Your task to perform on an android device: Add "usb-b" to the cart on newegg Image 0: 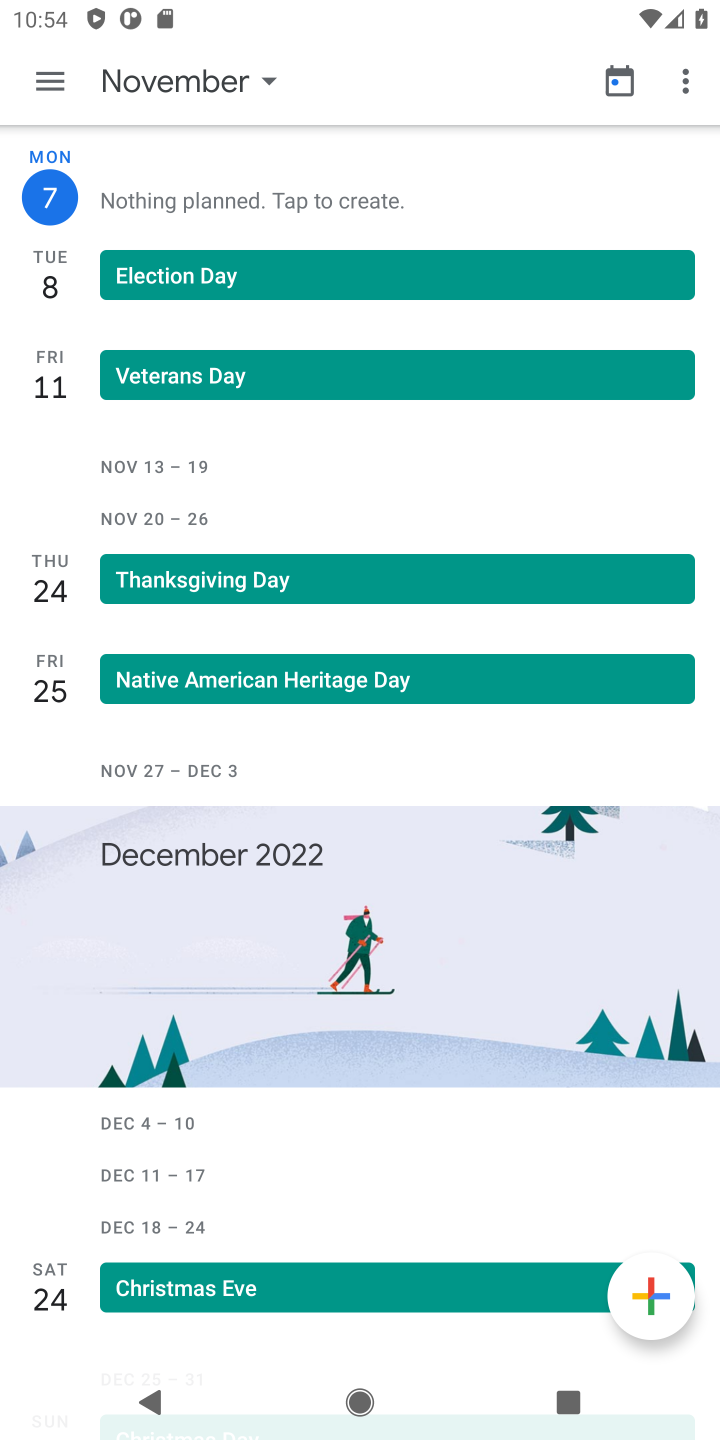
Step 0: press home button
Your task to perform on an android device: Add "usb-b" to the cart on newegg Image 1: 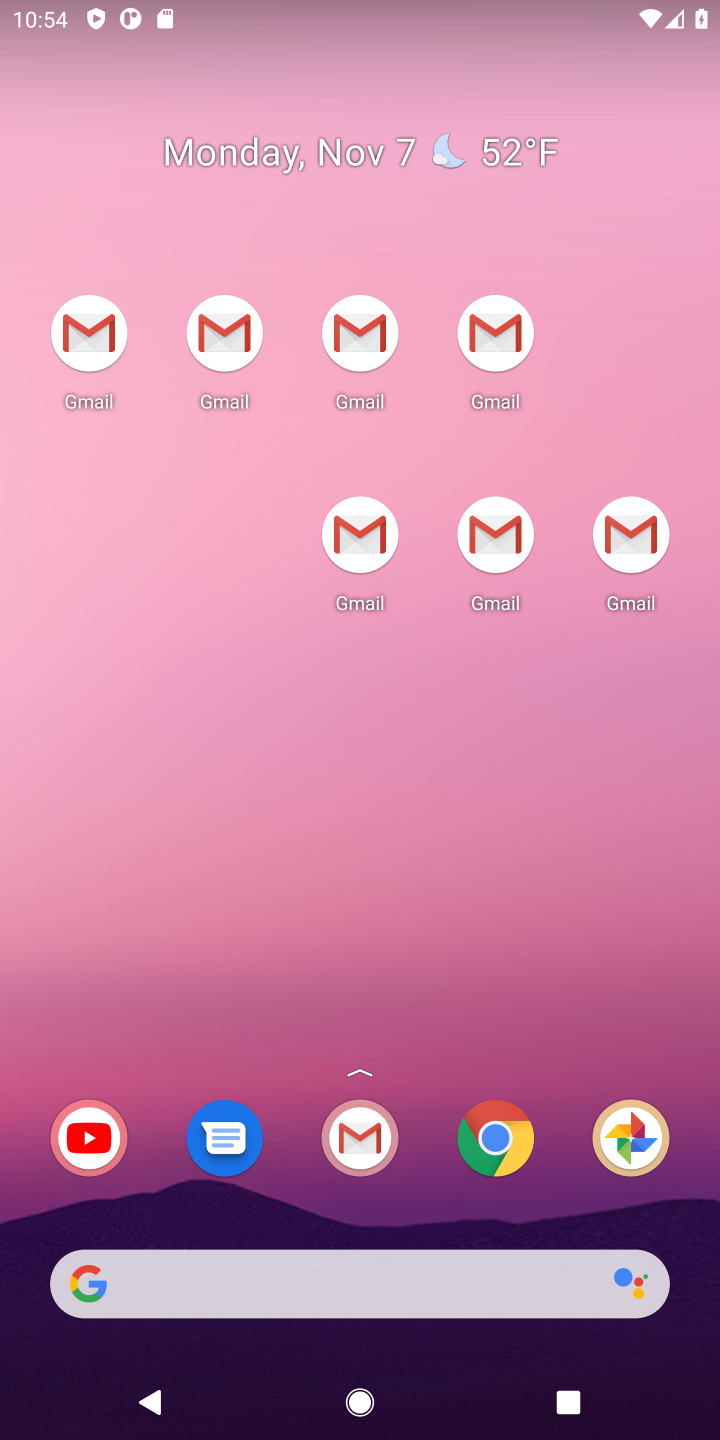
Step 1: drag from (459, 1135) to (459, 585)
Your task to perform on an android device: Add "usb-b" to the cart on newegg Image 2: 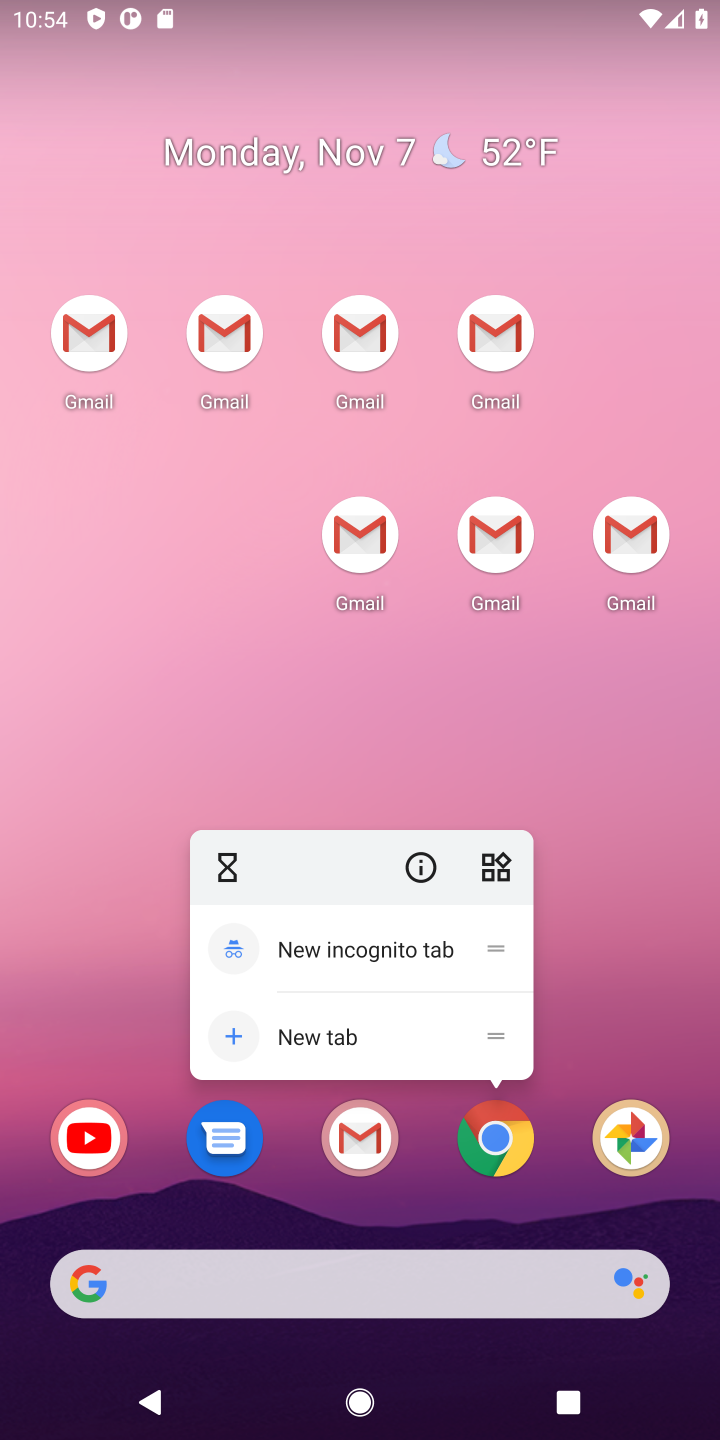
Step 2: click (531, 775)
Your task to perform on an android device: Add "usb-b" to the cart on newegg Image 3: 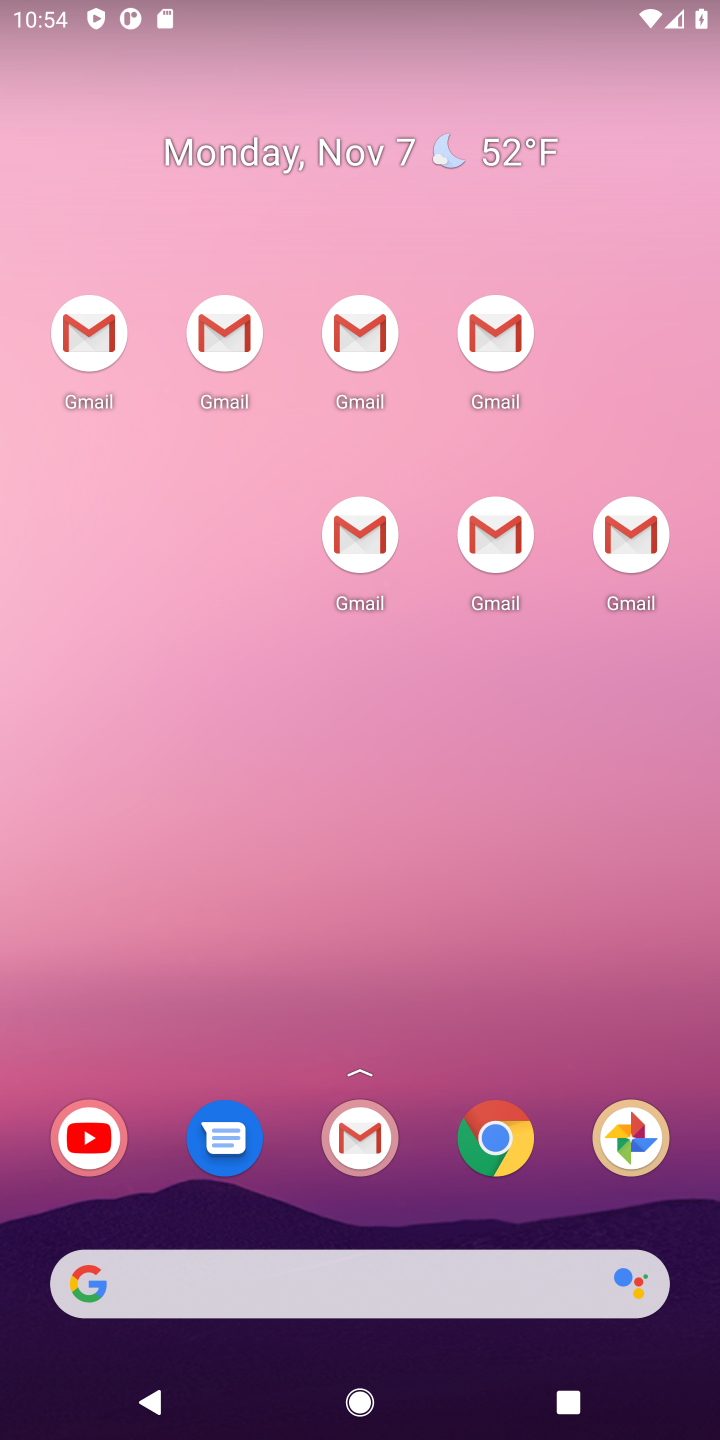
Step 3: drag from (420, 1203) to (427, 952)
Your task to perform on an android device: Add "usb-b" to the cart on newegg Image 4: 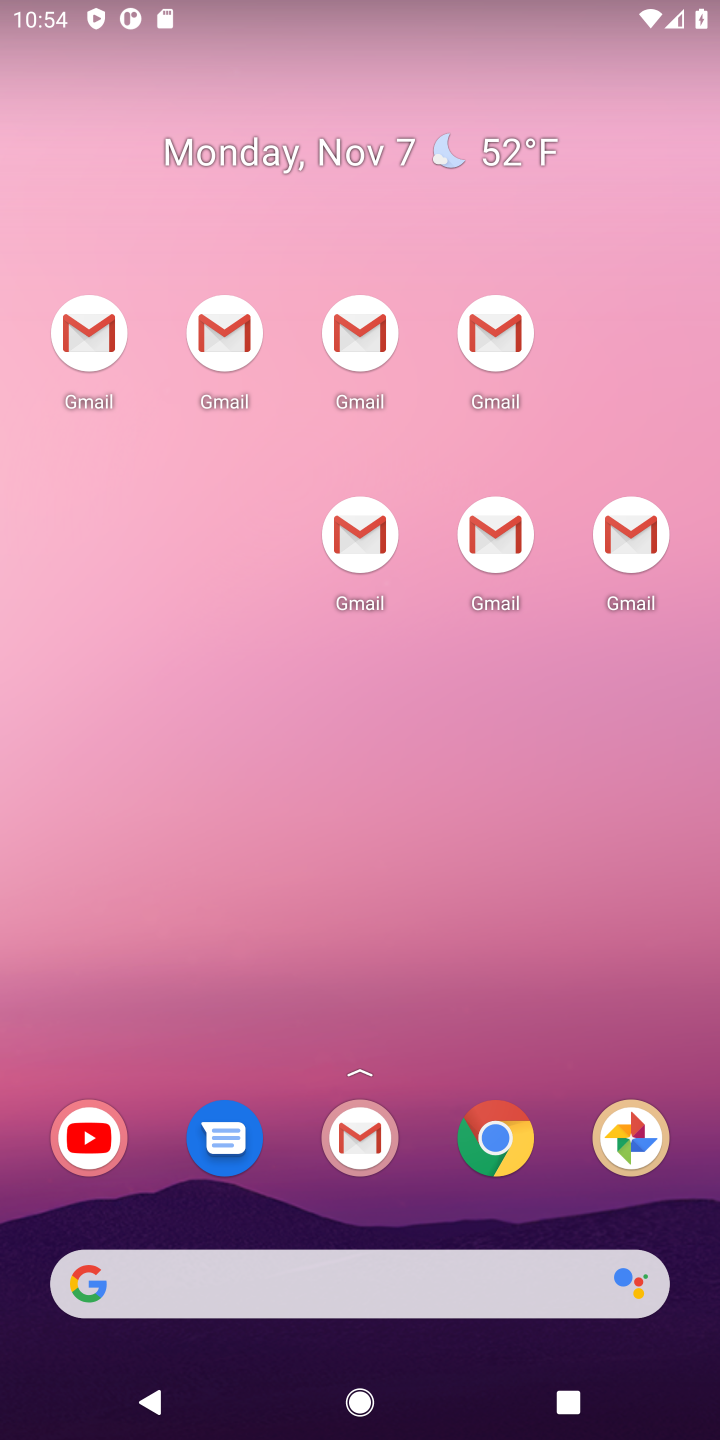
Step 4: drag from (437, 1204) to (437, 865)
Your task to perform on an android device: Add "usb-b" to the cart on newegg Image 5: 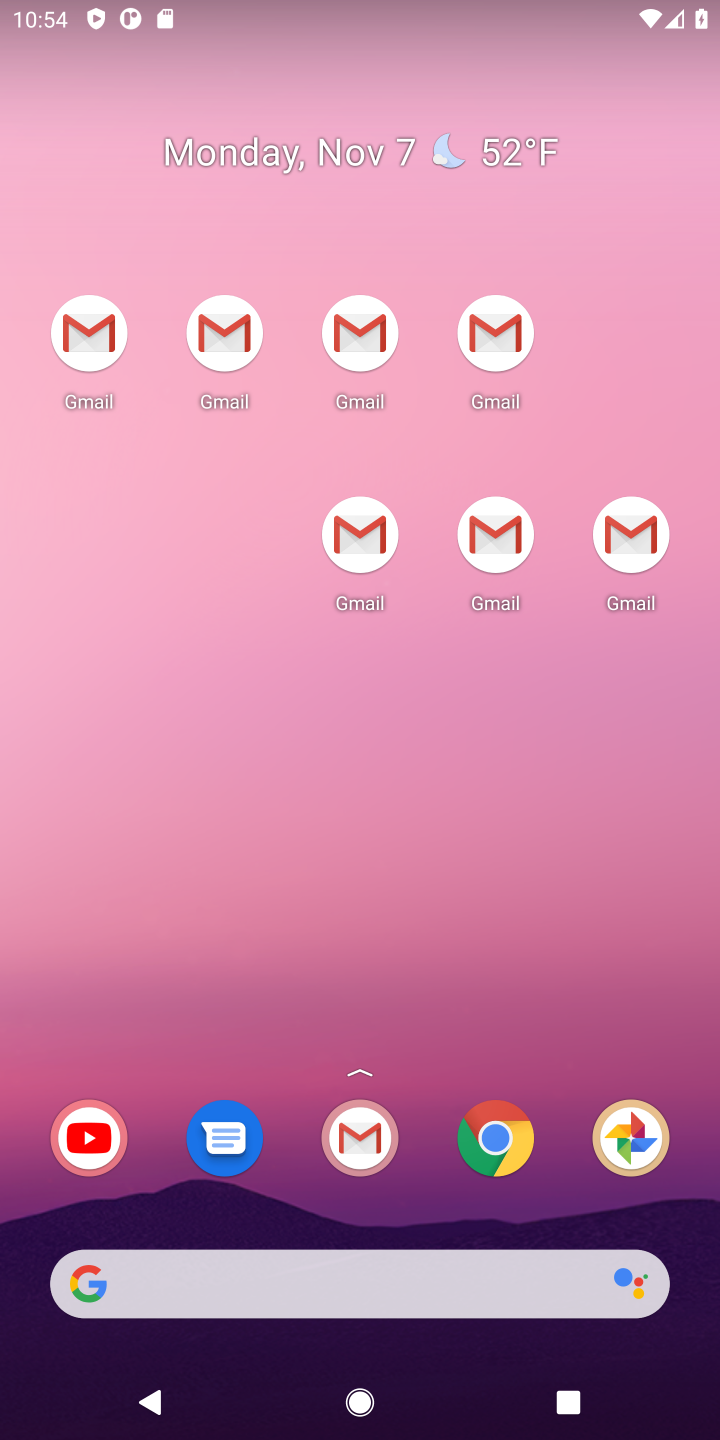
Step 5: drag from (416, 1185) to (417, 440)
Your task to perform on an android device: Add "usb-b" to the cart on newegg Image 6: 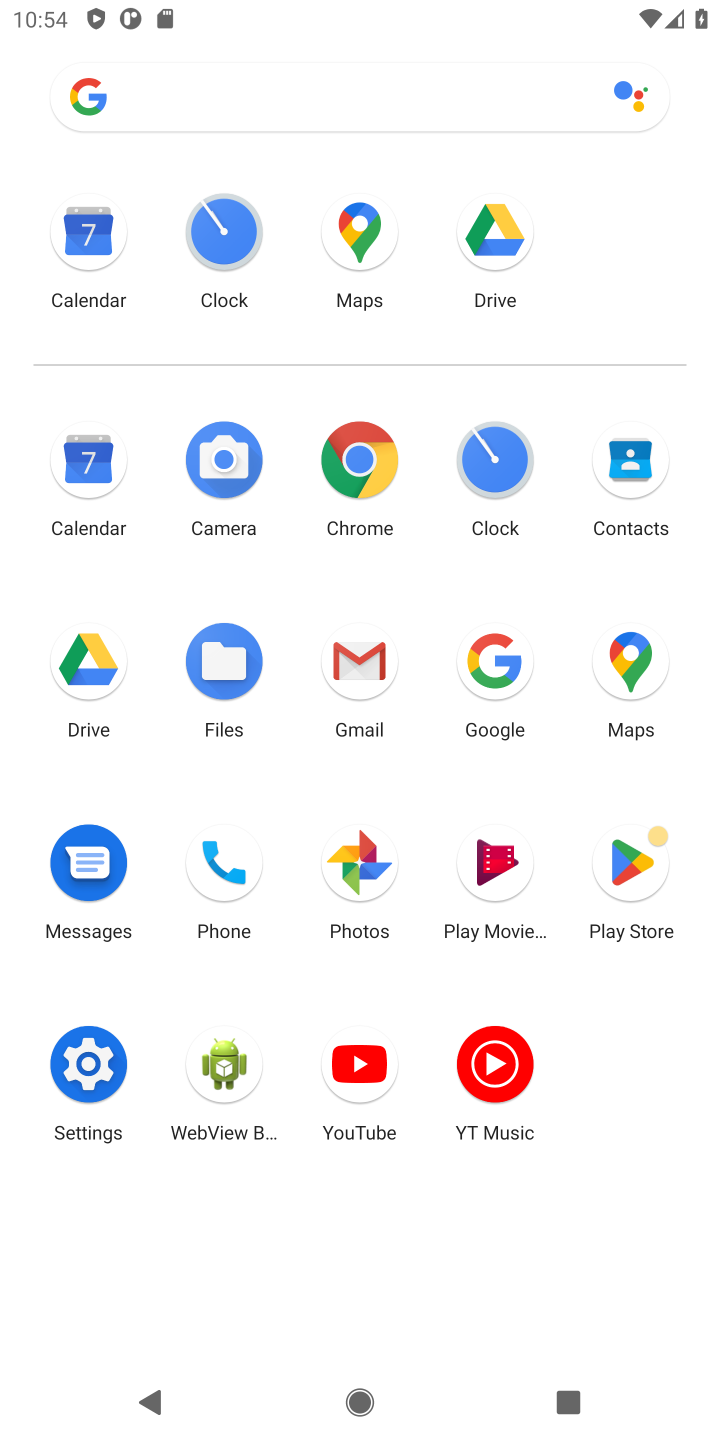
Step 6: click (500, 684)
Your task to perform on an android device: Add "usb-b" to the cart on newegg Image 7: 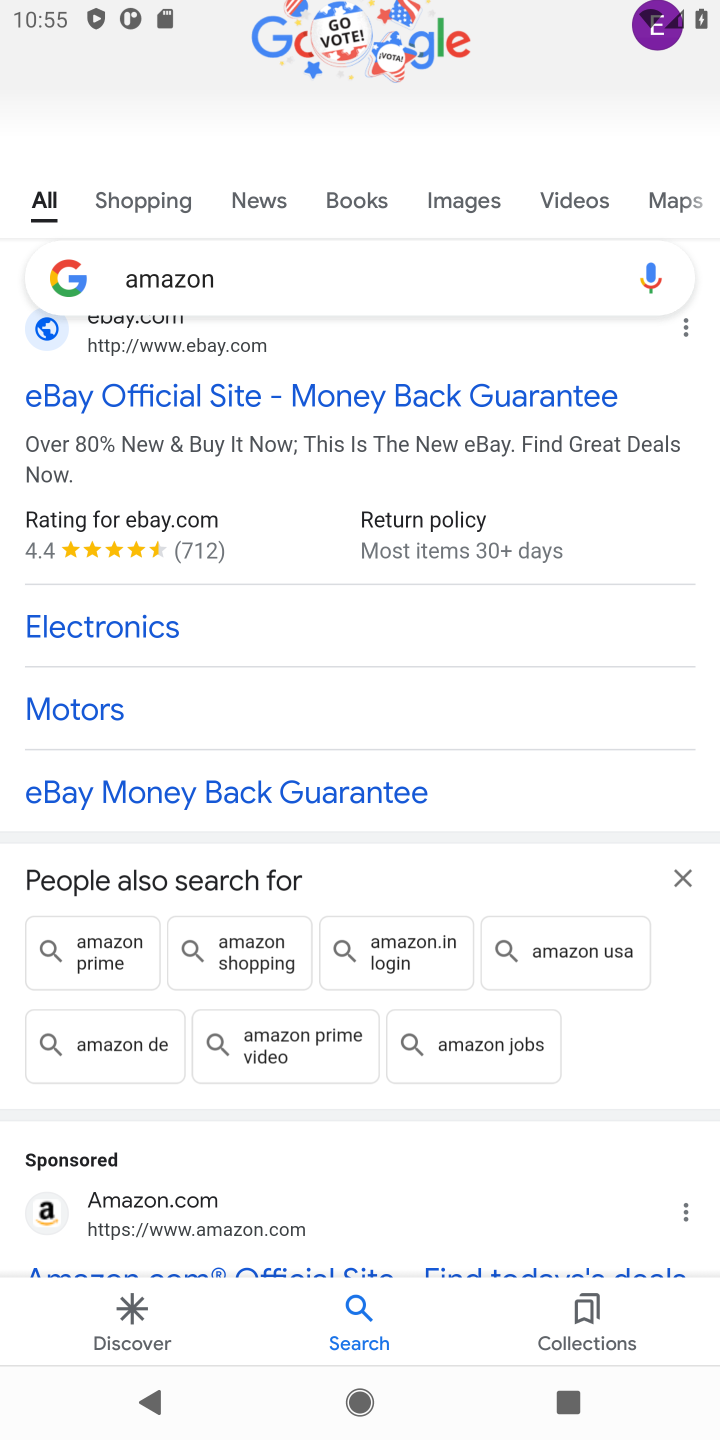
Step 7: click (364, 285)
Your task to perform on an android device: Add "usb-b" to the cart on newegg Image 8: 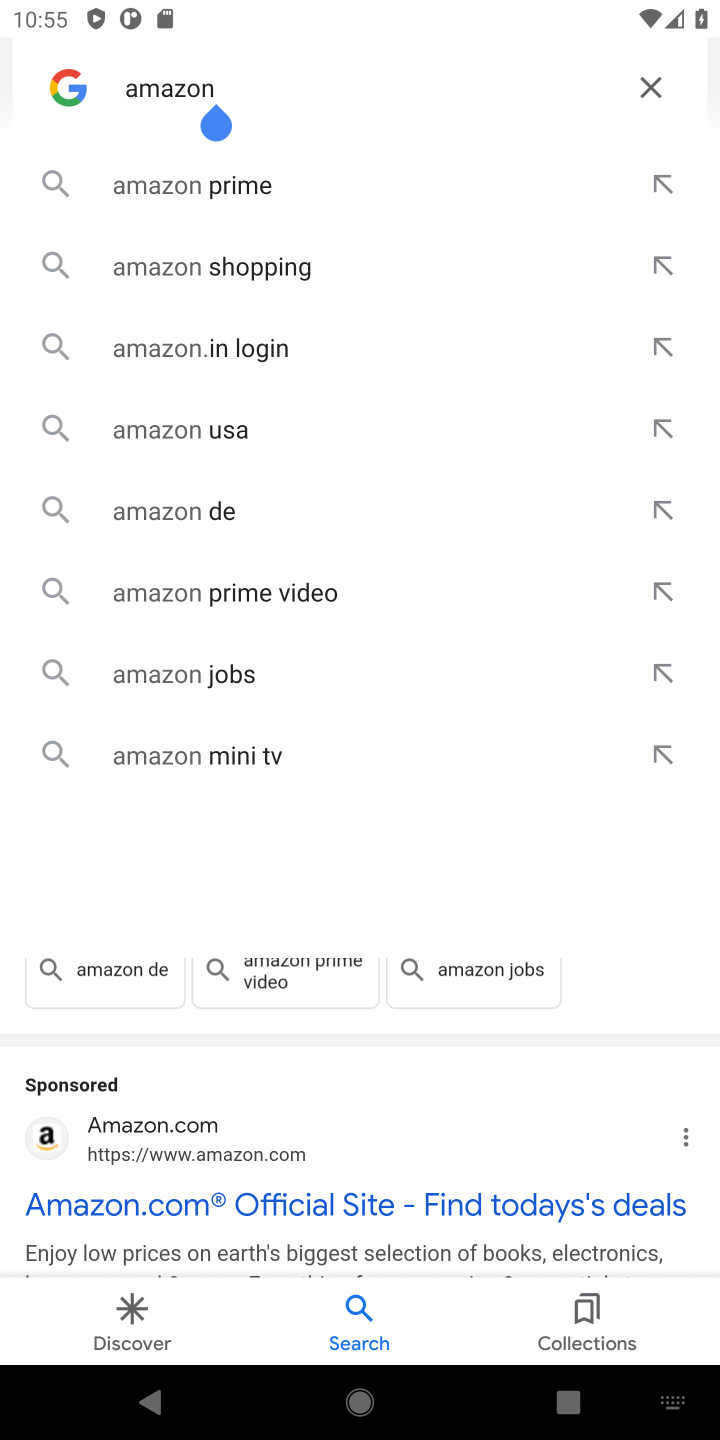
Step 8: click (471, 295)
Your task to perform on an android device: Add "usb-b" to the cart on newegg Image 9: 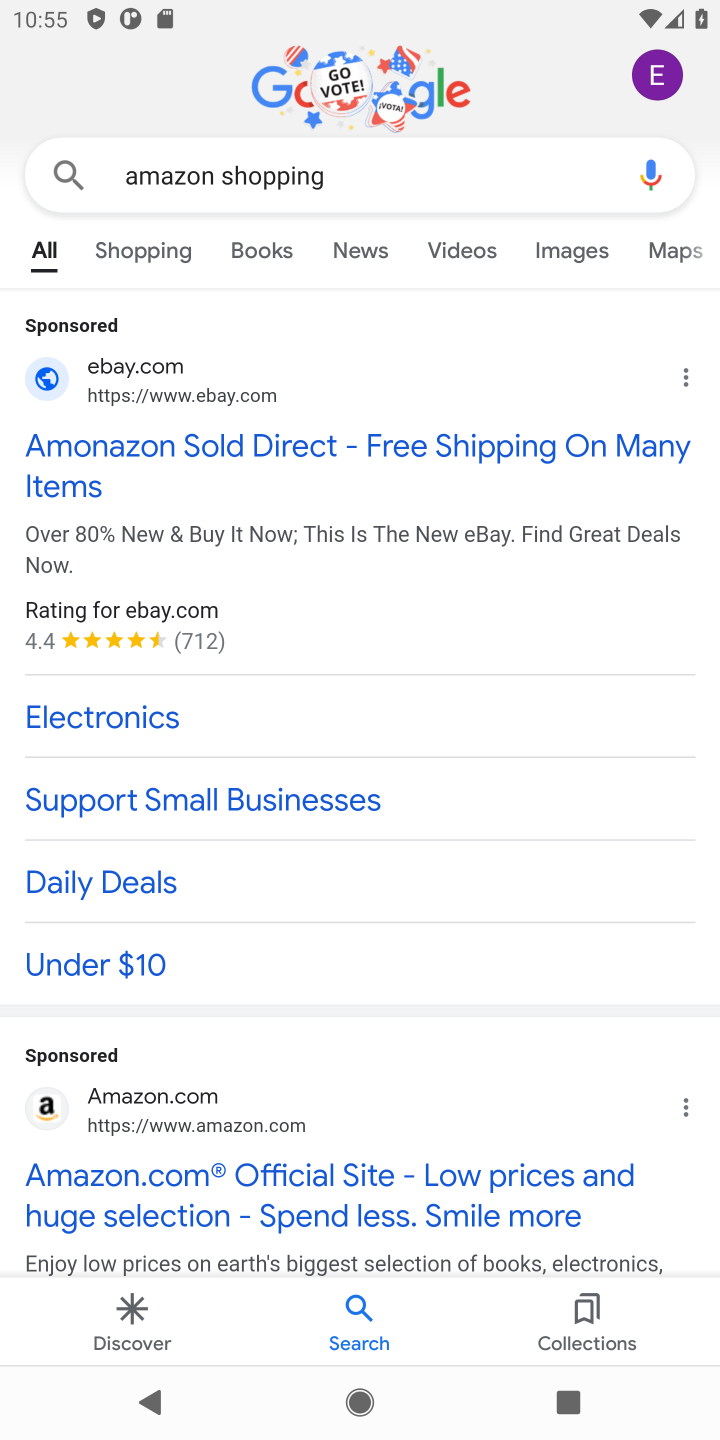
Step 9: click (553, 162)
Your task to perform on an android device: Add "usb-b" to the cart on newegg Image 10: 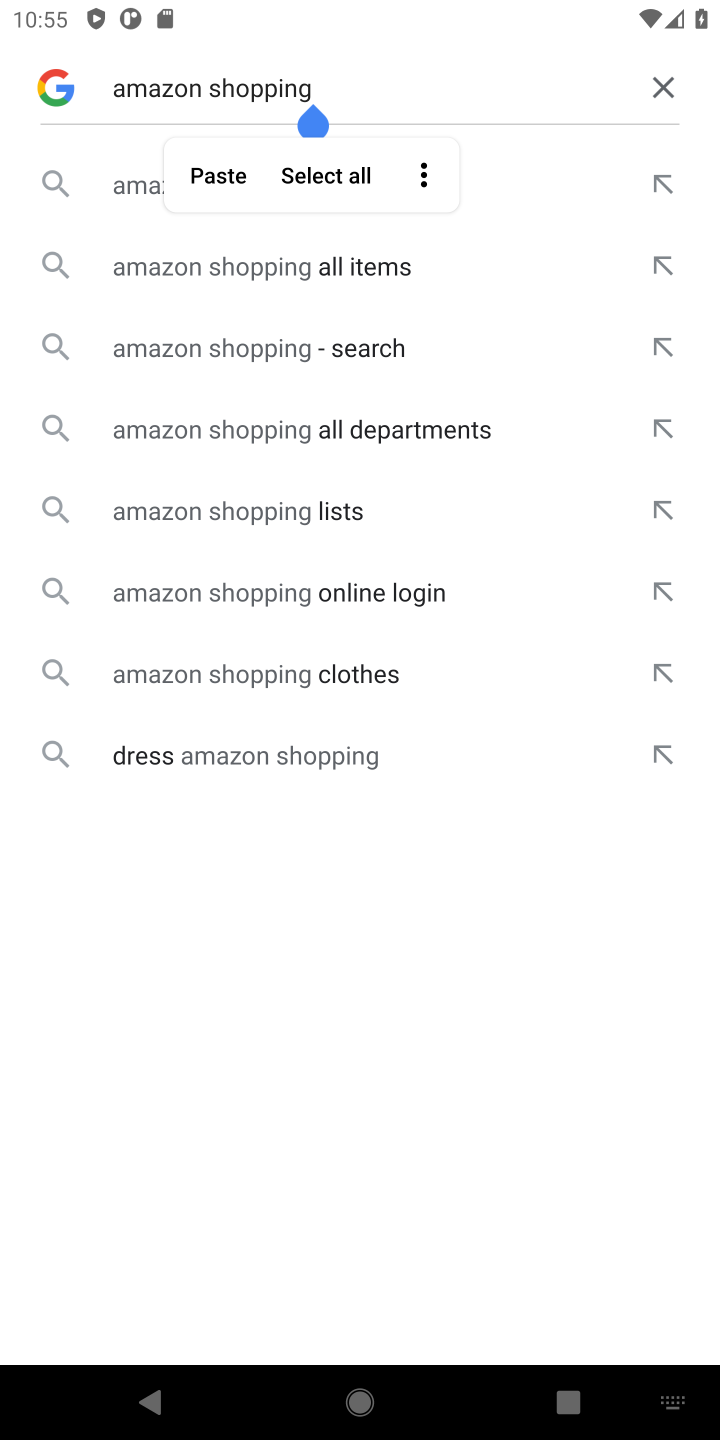
Step 10: click (658, 83)
Your task to perform on an android device: Add "usb-b" to the cart on newegg Image 11: 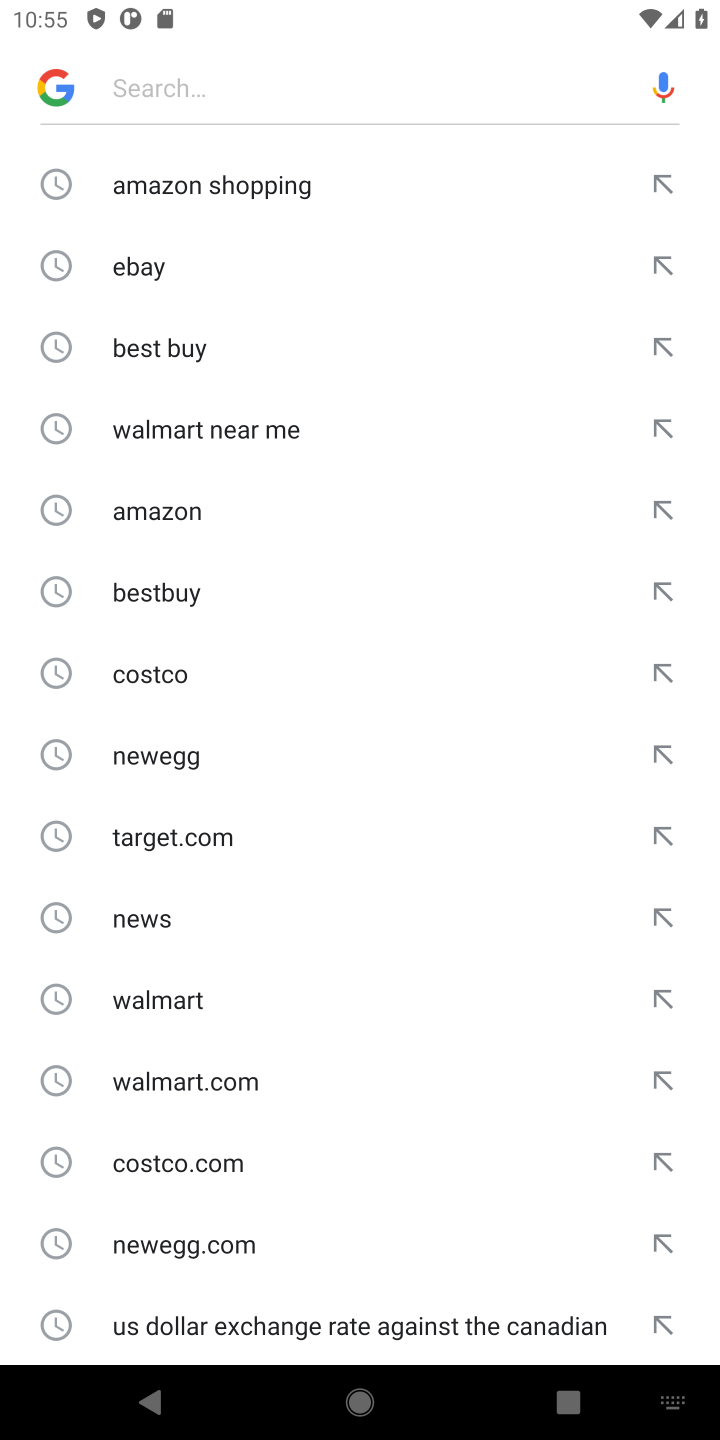
Step 11: type "newegg"
Your task to perform on an android device: Add "usb-b" to the cart on newegg Image 12: 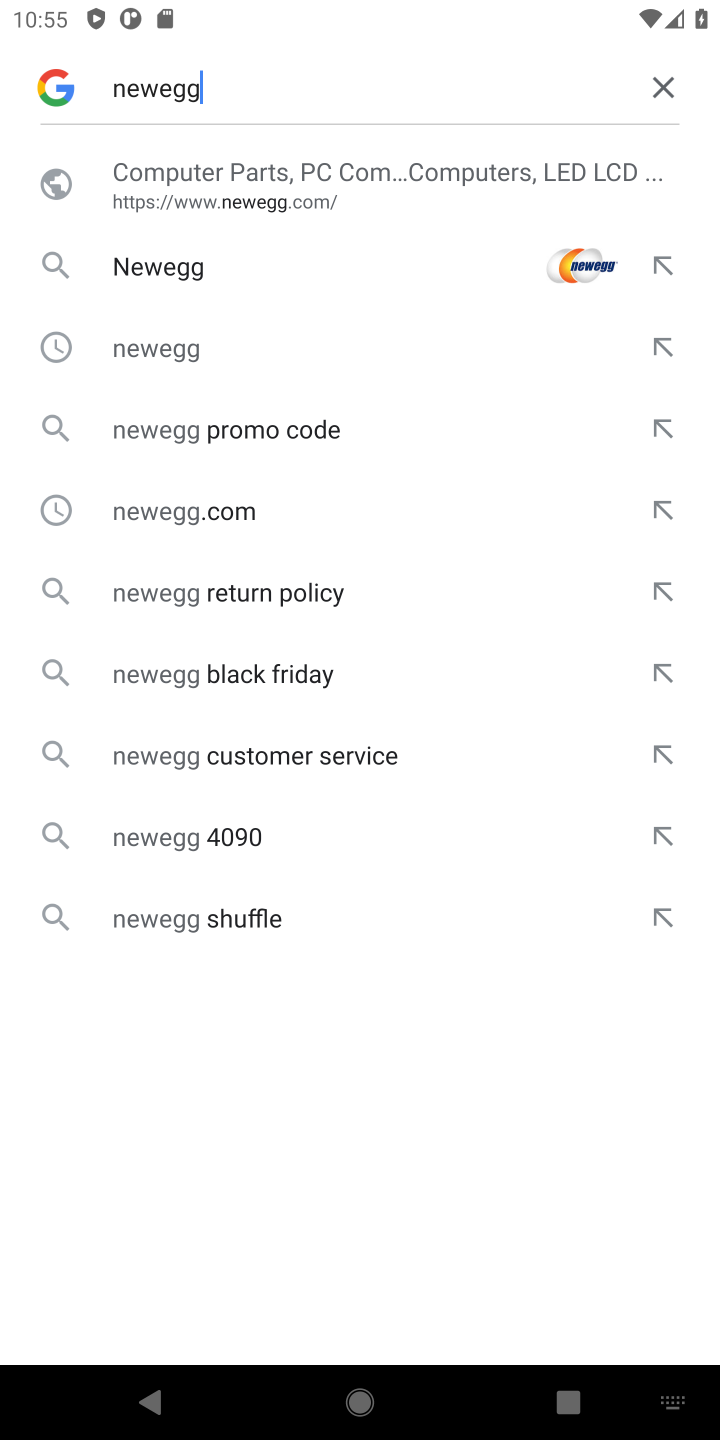
Step 12: click (323, 183)
Your task to perform on an android device: Add "usb-b" to the cart on newegg Image 13: 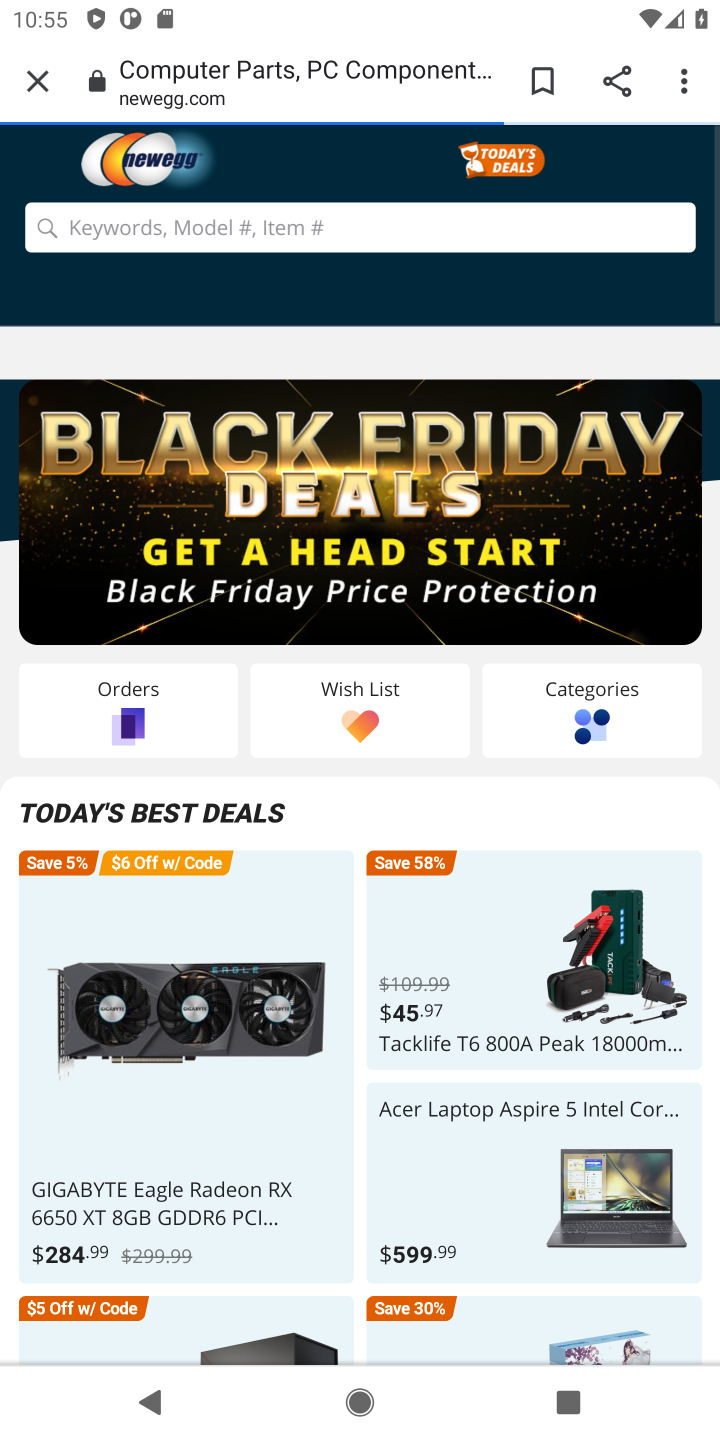
Step 13: click (323, 183)
Your task to perform on an android device: Add "usb-b" to the cart on newegg Image 14: 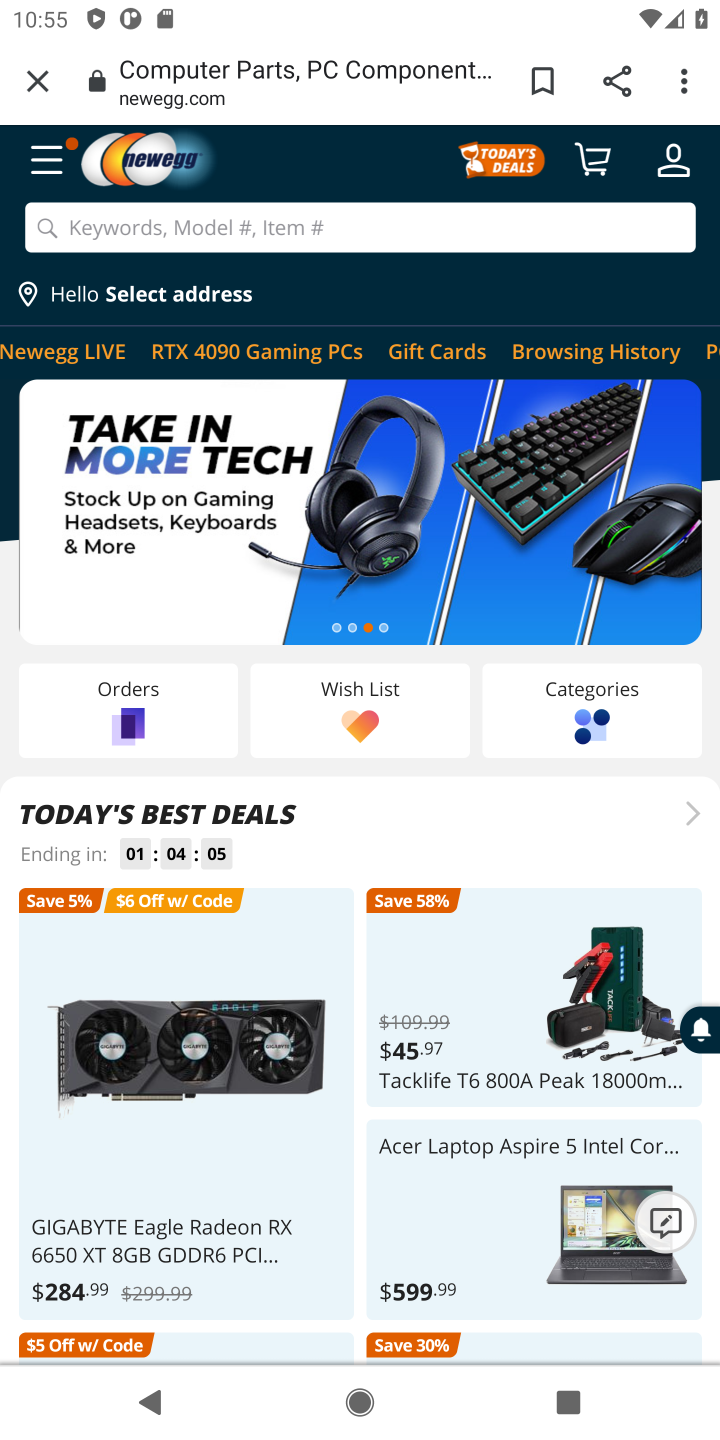
Step 14: click (433, 238)
Your task to perform on an android device: Add "usb-b" to the cart on newegg Image 15: 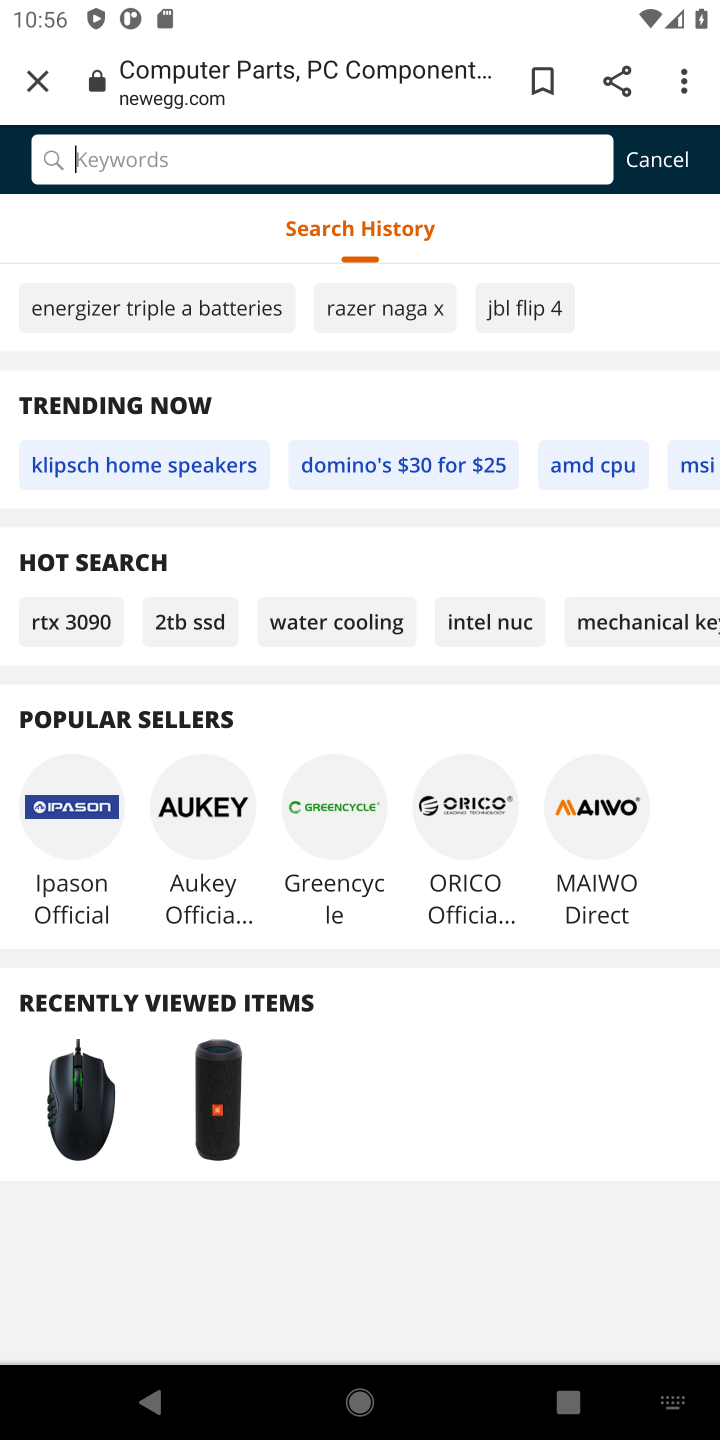
Step 15: type "usb-b"
Your task to perform on an android device: Add "usb-b" to the cart on newegg Image 16: 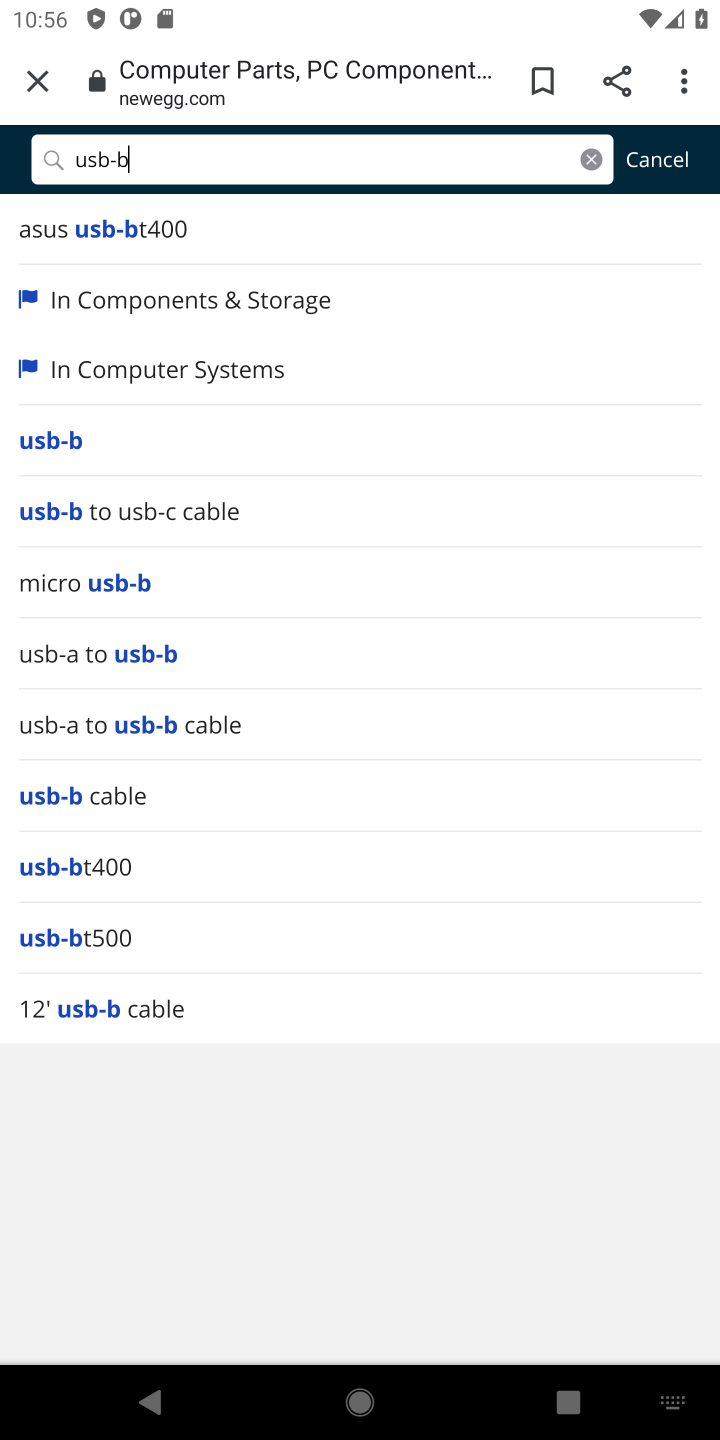
Step 16: click (109, 432)
Your task to perform on an android device: Add "usb-b" to the cart on newegg Image 17: 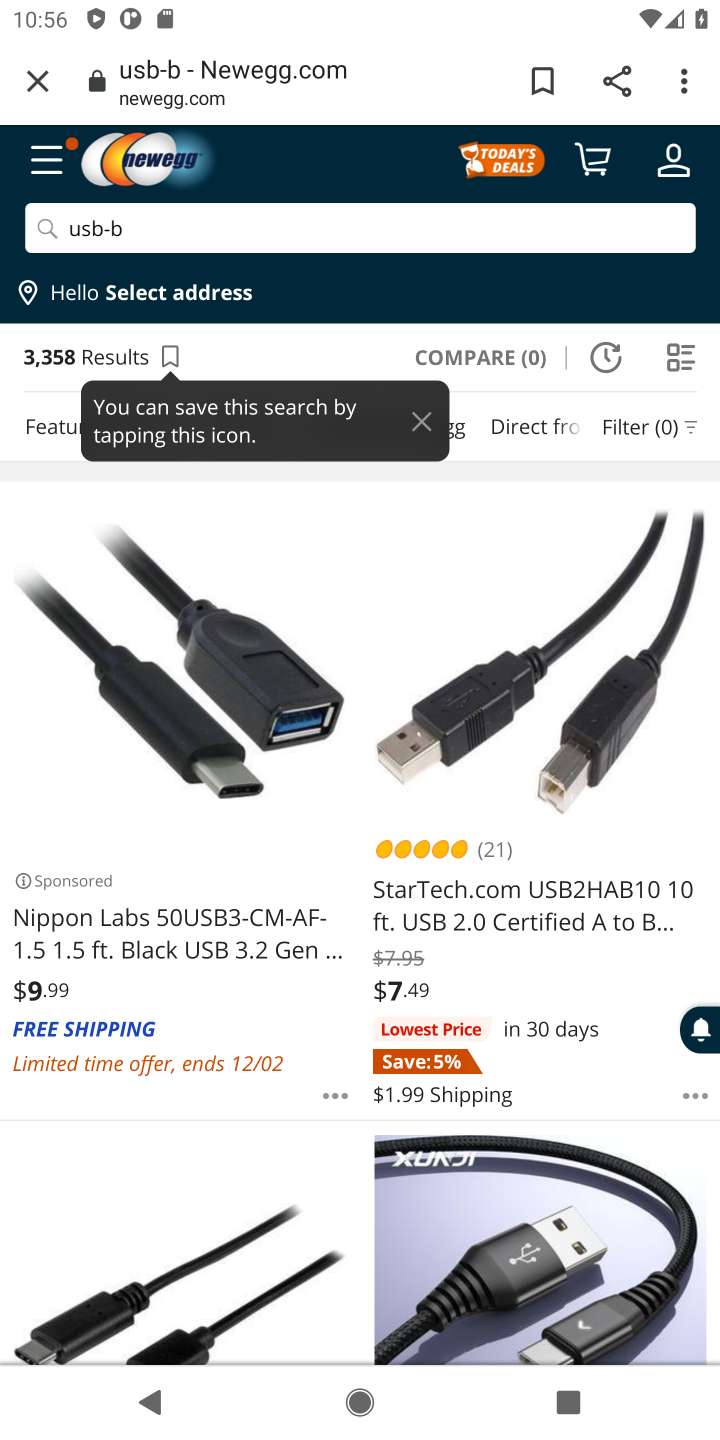
Step 17: click (241, 637)
Your task to perform on an android device: Add "usb-b" to the cart on newegg Image 18: 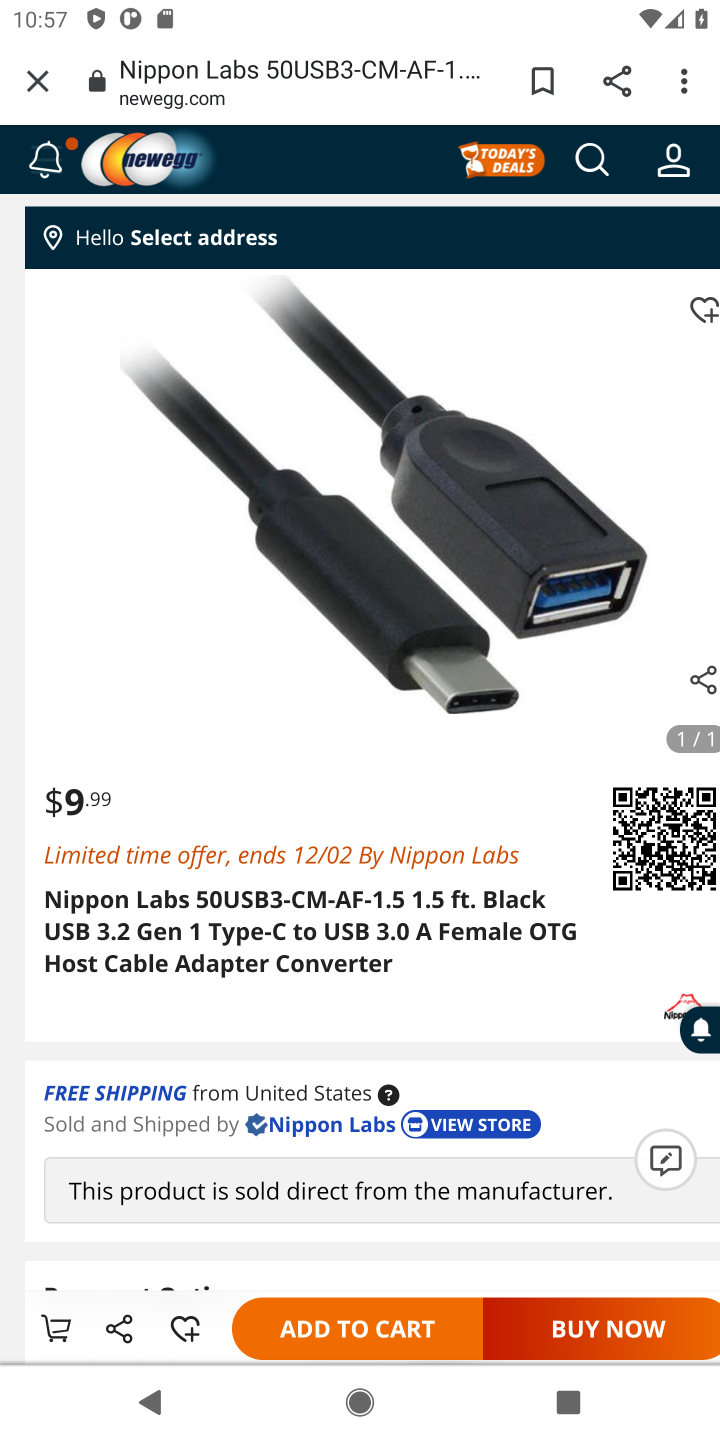
Step 18: click (426, 1330)
Your task to perform on an android device: Add "usb-b" to the cart on newegg Image 19: 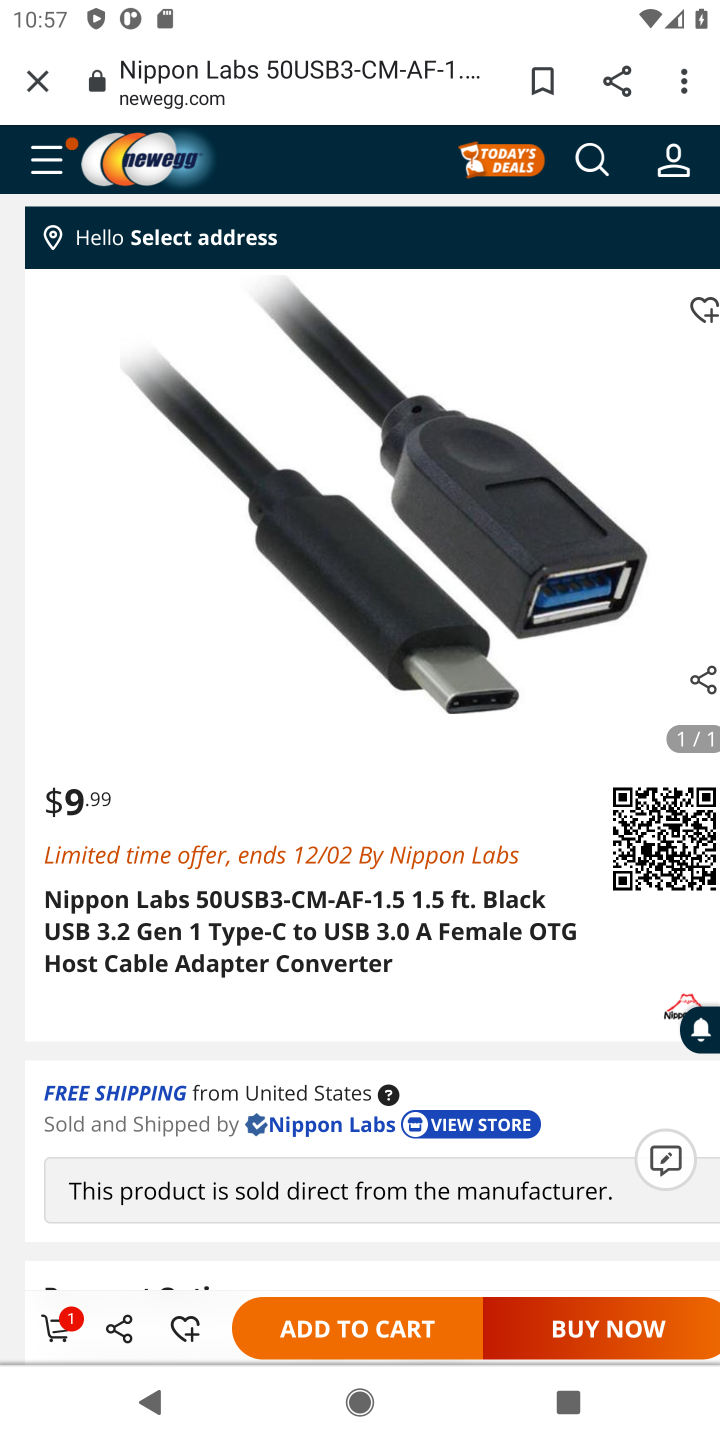
Step 19: task complete